Your task to perform on an android device: Open calendar and show me the second week of next month Image 0: 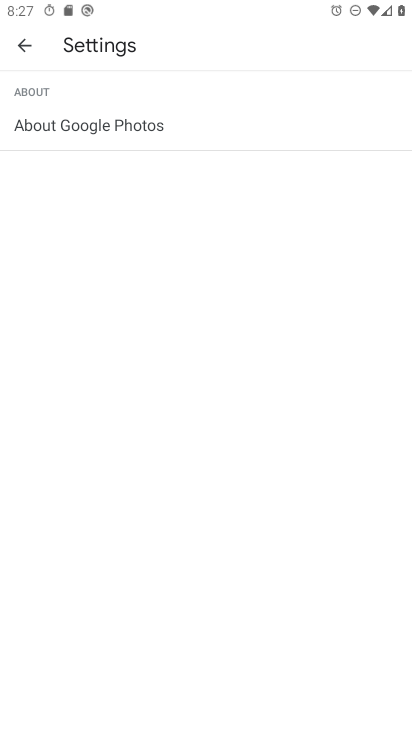
Step 0: press home button
Your task to perform on an android device: Open calendar and show me the second week of next month Image 1: 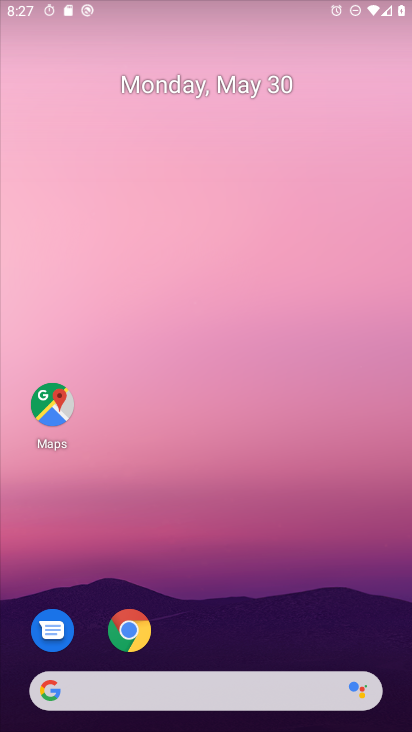
Step 1: drag from (379, 631) to (312, 75)
Your task to perform on an android device: Open calendar and show me the second week of next month Image 2: 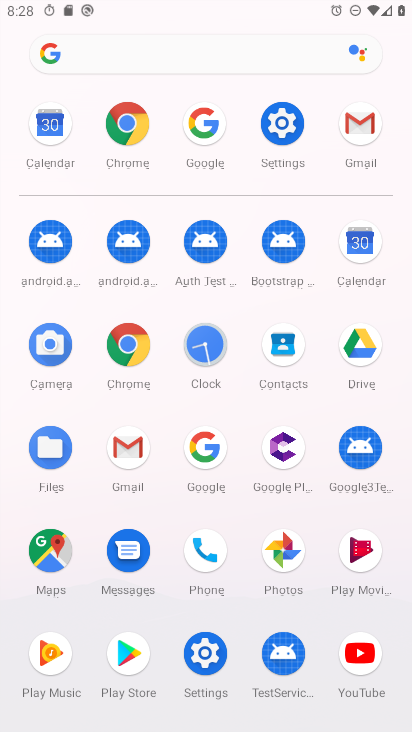
Step 2: click (367, 236)
Your task to perform on an android device: Open calendar and show me the second week of next month Image 3: 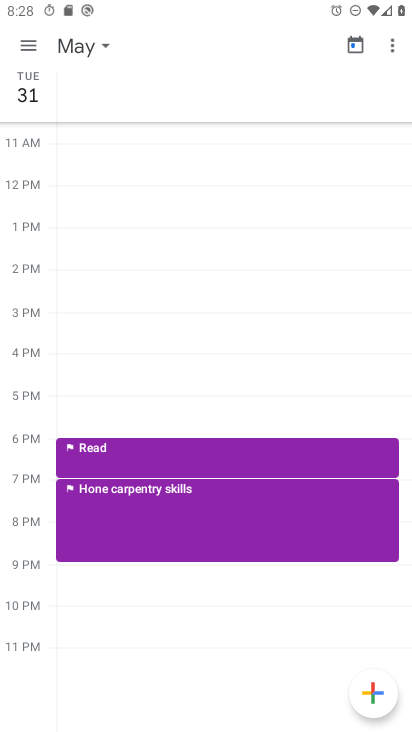
Step 3: click (78, 50)
Your task to perform on an android device: Open calendar and show me the second week of next month Image 4: 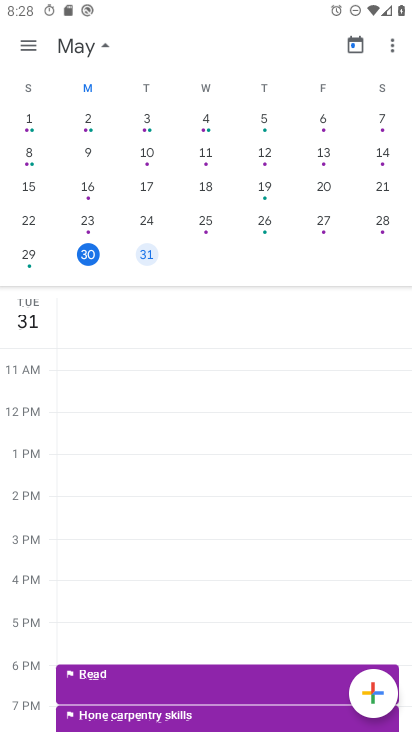
Step 4: drag from (380, 201) to (5, 262)
Your task to perform on an android device: Open calendar and show me the second week of next month Image 5: 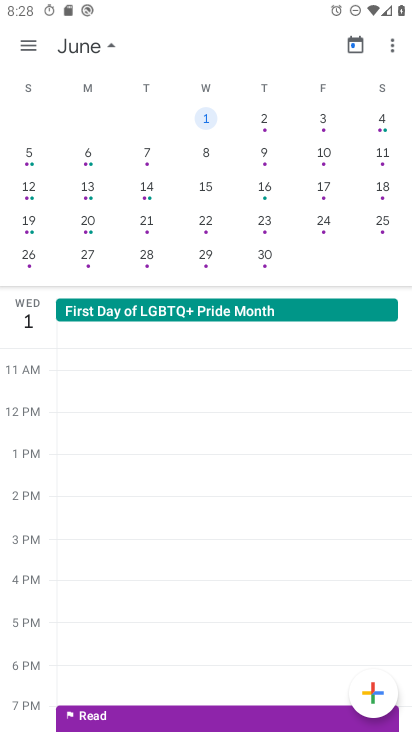
Step 5: click (139, 201)
Your task to perform on an android device: Open calendar and show me the second week of next month Image 6: 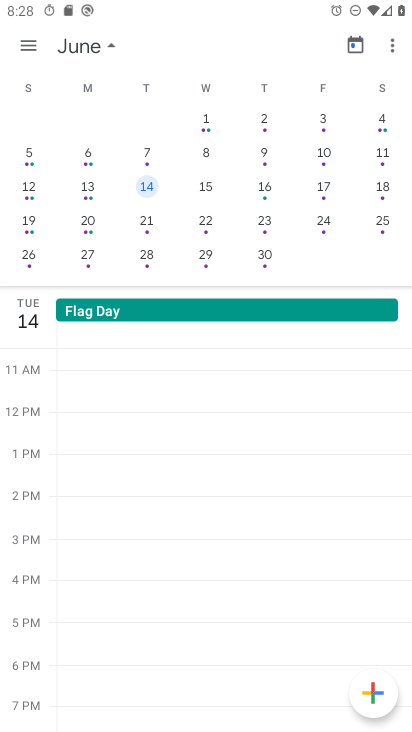
Step 6: task complete